Your task to perform on an android device: turn off translation in the chrome app Image 0: 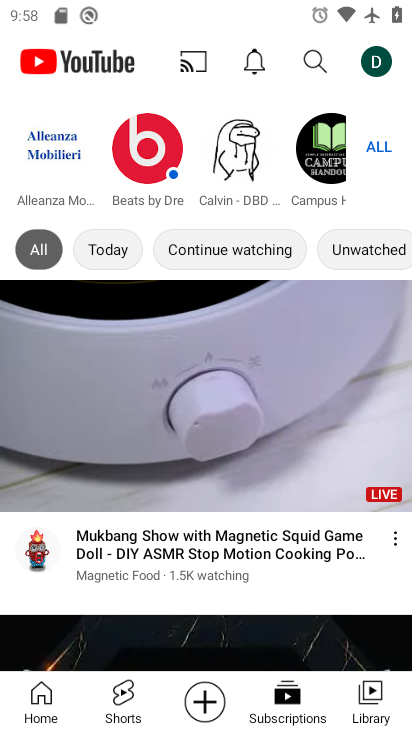
Step 0: press home button
Your task to perform on an android device: turn off translation in the chrome app Image 1: 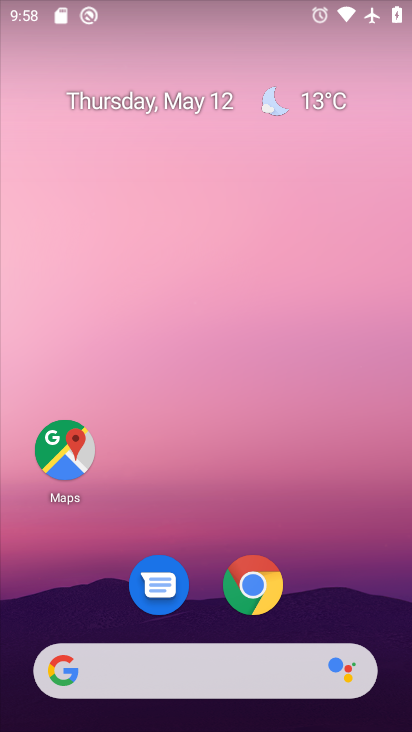
Step 1: click (258, 589)
Your task to perform on an android device: turn off translation in the chrome app Image 2: 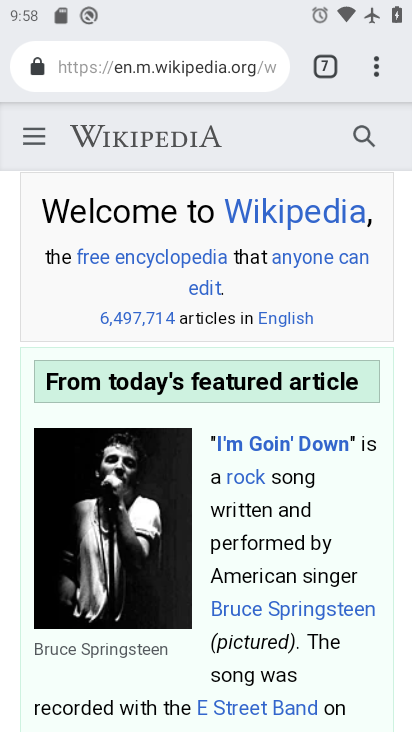
Step 2: click (377, 66)
Your task to perform on an android device: turn off translation in the chrome app Image 3: 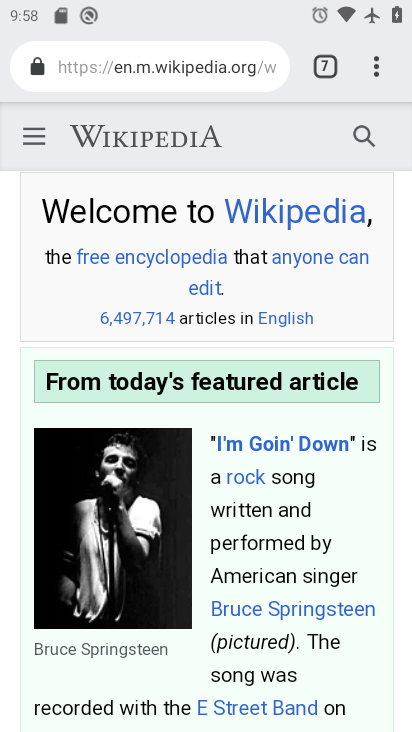
Step 3: click (377, 64)
Your task to perform on an android device: turn off translation in the chrome app Image 4: 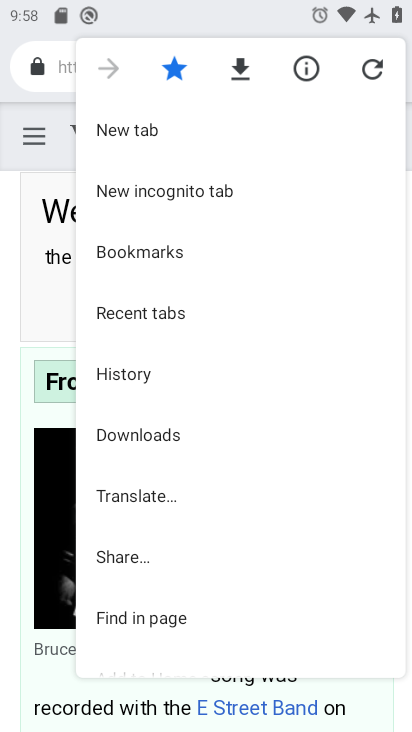
Step 4: drag from (228, 522) to (213, 224)
Your task to perform on an android device: turn off translation in the chrome app Image 5: 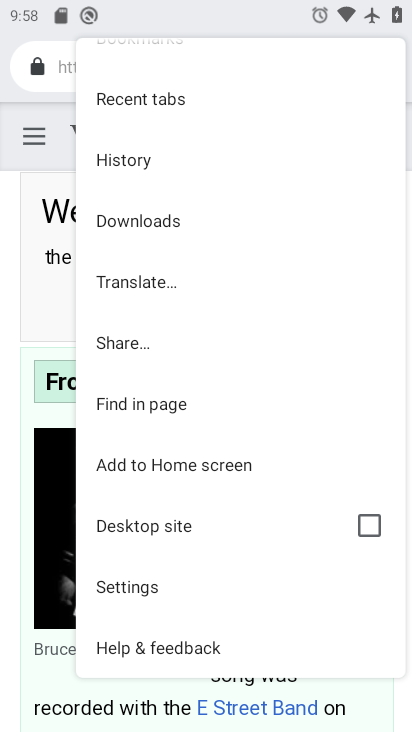
Step 5: click (170, 576)
Your task to perform on an android device: turn off translation in the chrome app Image 6: 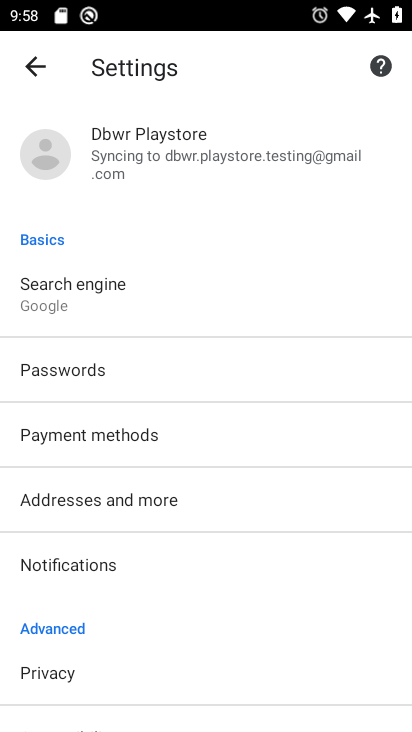
Step 6: drag from (230, 570) to (251, 191)
Your task to perform on an android device: turn off translation in the chrome app Image 7: 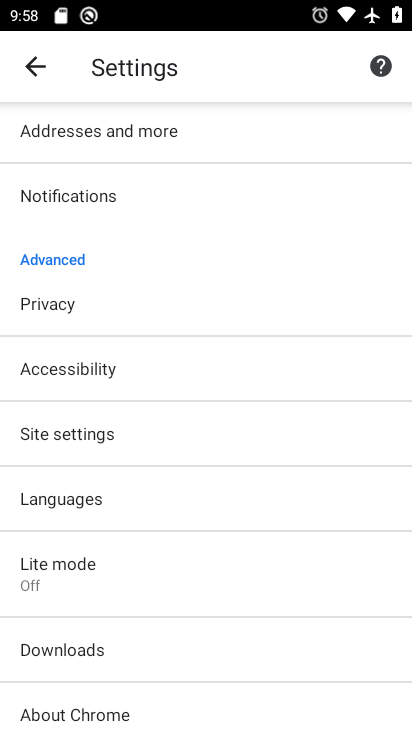
Step 7: click (188, 490)
Your task to perform on an android device: turn off translation in the chrome app Image 8: 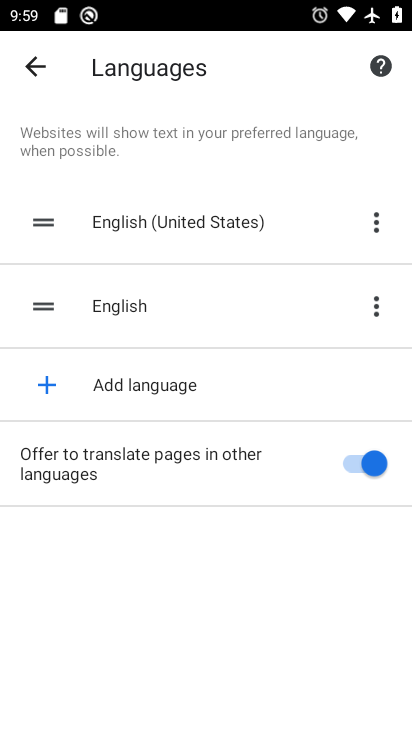
Step 8: click (345, 460)
Your task to perform on an android device: turn off translation in the chrome app Image 9: 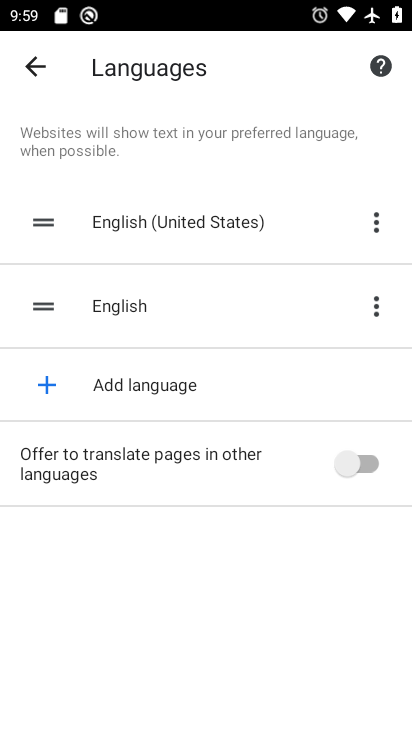
Step 9: task complete